Your task to perform on an android device: Search for "razer thresher" on newegg.com, select the first entry, and add it to the cart. Image 0: 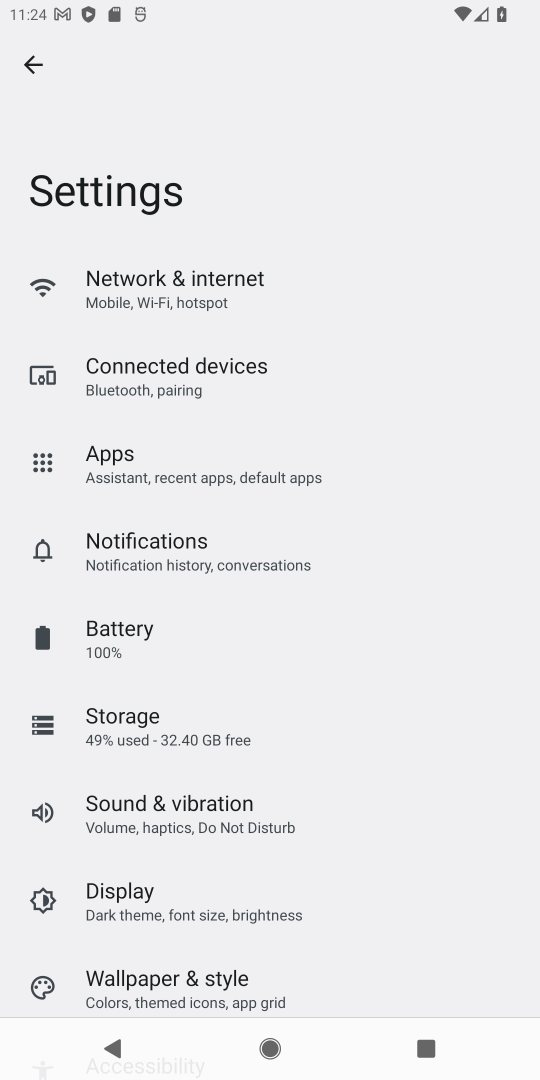
Step 0: press home button
Your task to perform on an android device: Search for "razer thresher" on newegg.com, select the first entry, and add it to the cart. Image 1: 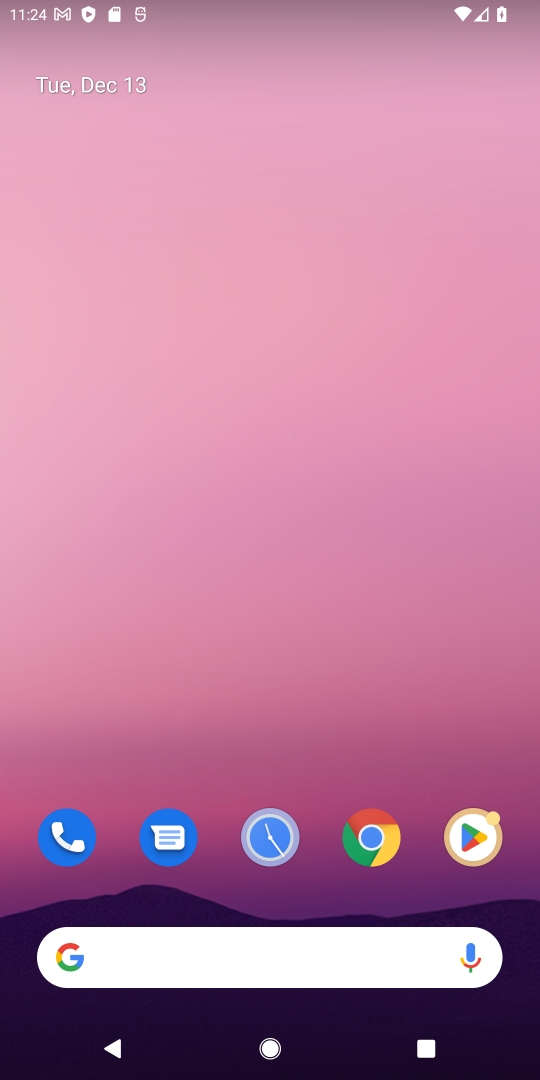
Step 1: click (389, 840)
Your task to perform on an android device: Search for "razer thresher" on newegg.com, select the first entry, and add it to the cart. Image 2: 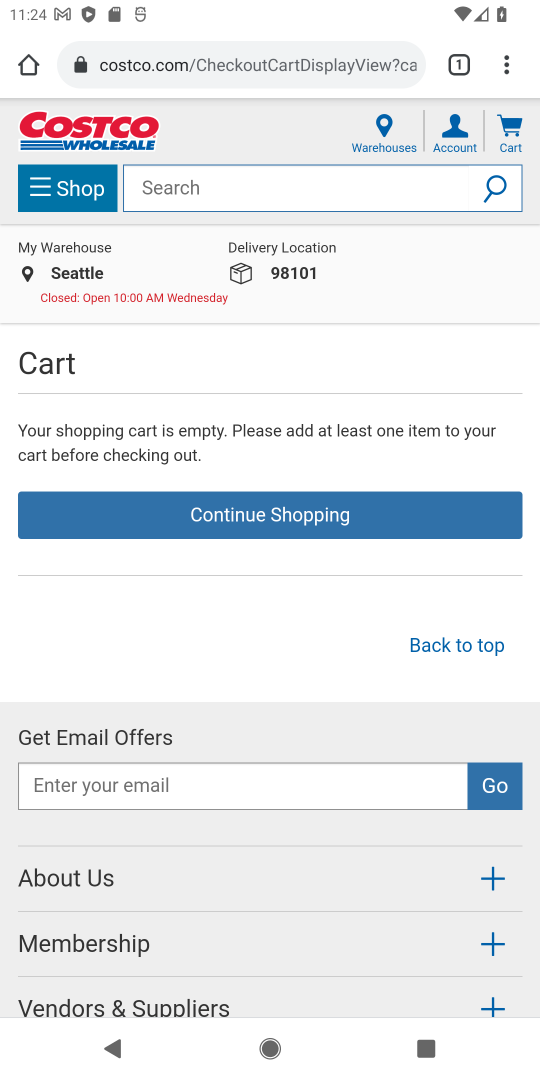
Step 2: click (235, 65)
Your task to perform on an android device: Search for "razer thresher" on newegg.com, select the first entry, and add it to the cart. Image 3: 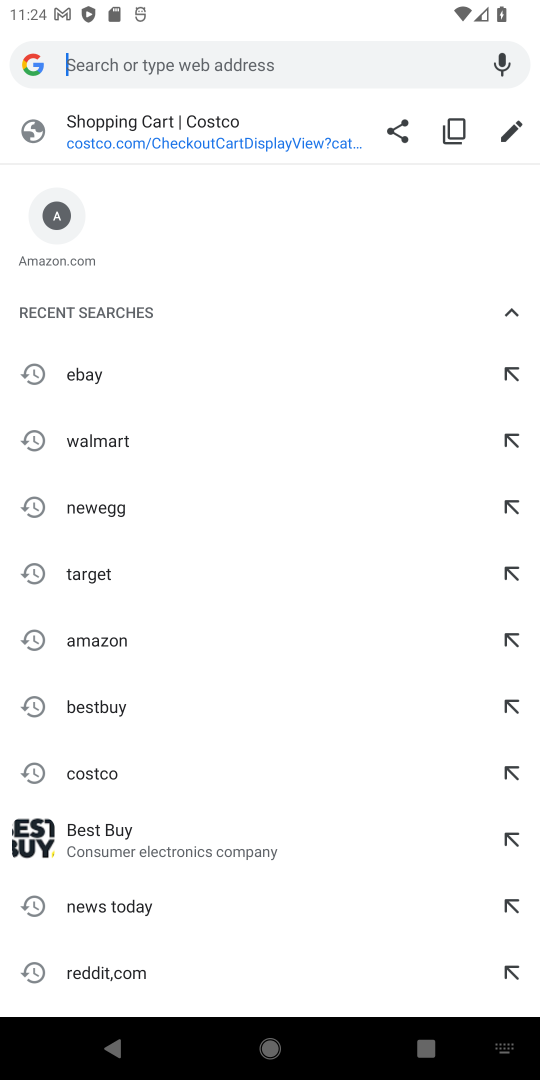
Step 3: click (165, 520)
Your task to perform on an android device: Search for "razer thresher" on newegg.com, select the first entry, and add it to the cart. Image 4: 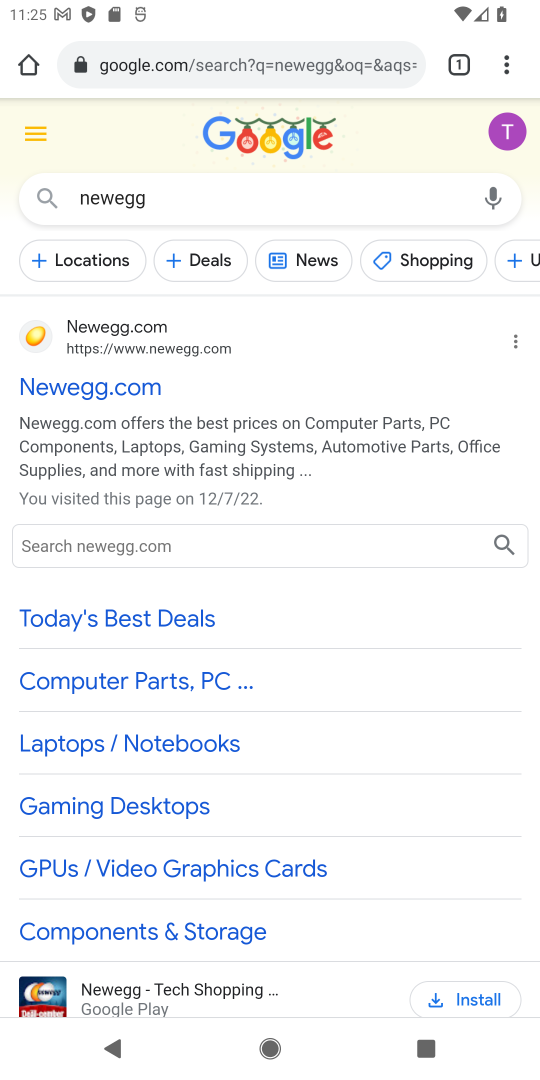
Step 4: click (98, 379)
Your task to perform on an android device: Search for "razer thresher" on newegg.com, select the first entry, and add it to the cart. Image 5: 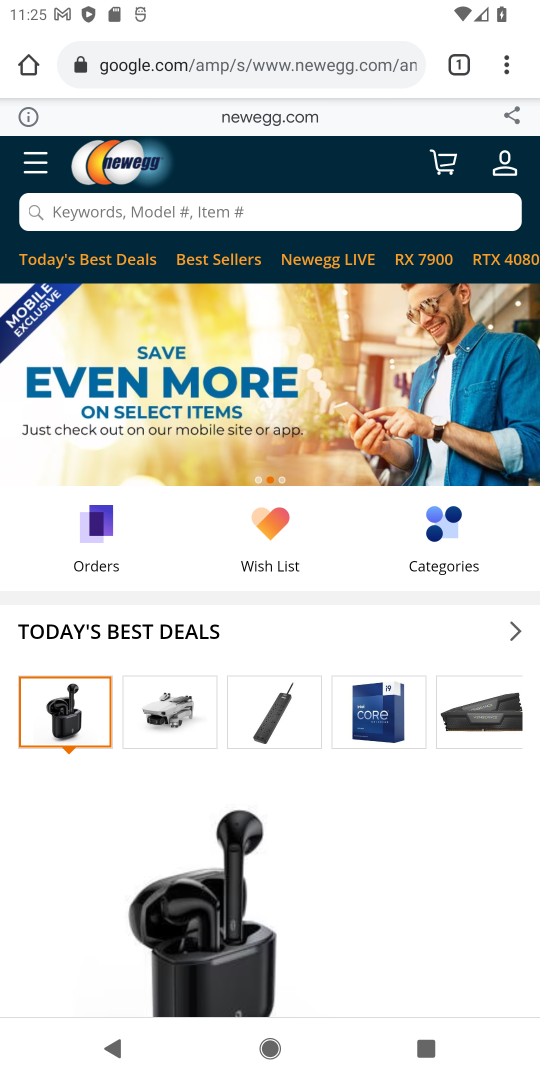
Step 5: click (161, 219)
Your task to perform on an android device: Search for "razer thresher" on newegg.com, select the first entry, and add it to the cart. Image 6: 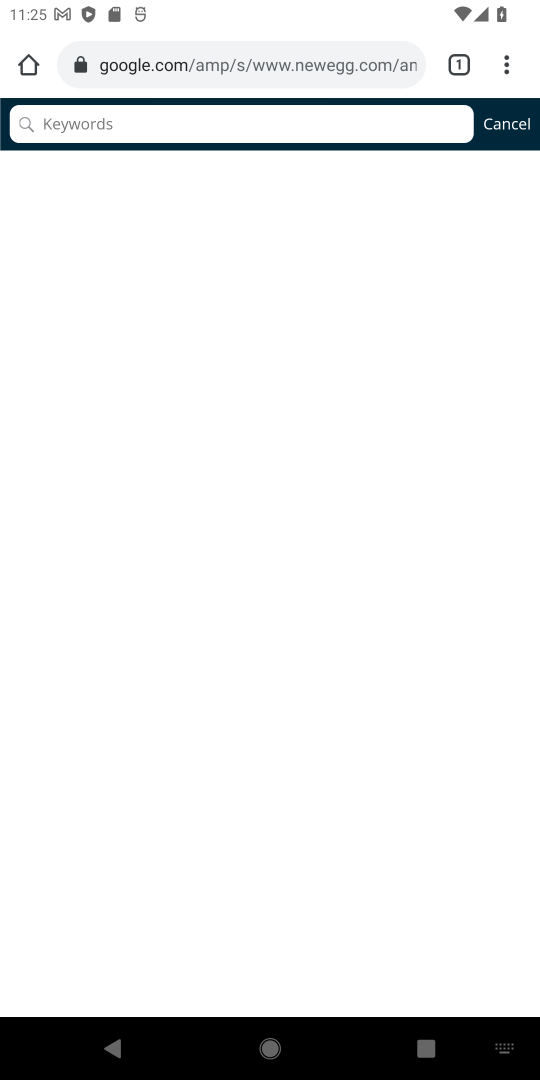
Step 6: type "razer thresher"
Your task to perform on an android device: Search for "razer thresher" on newegg.com, select the first entry, and add it to the cart. Image 7: 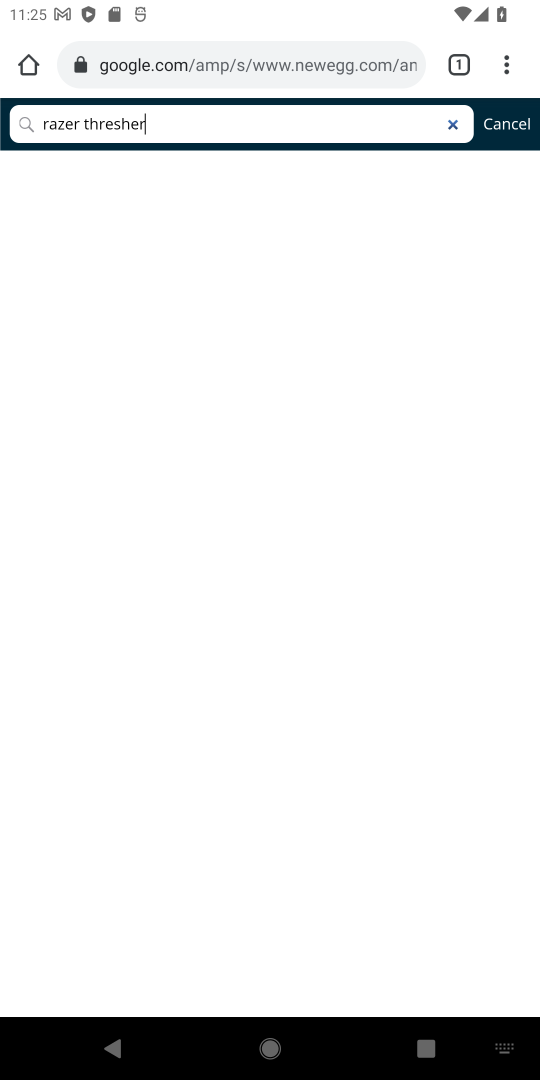
Step 7: task complete